Your task to perform on an android device: Go to Amazon Image 0: 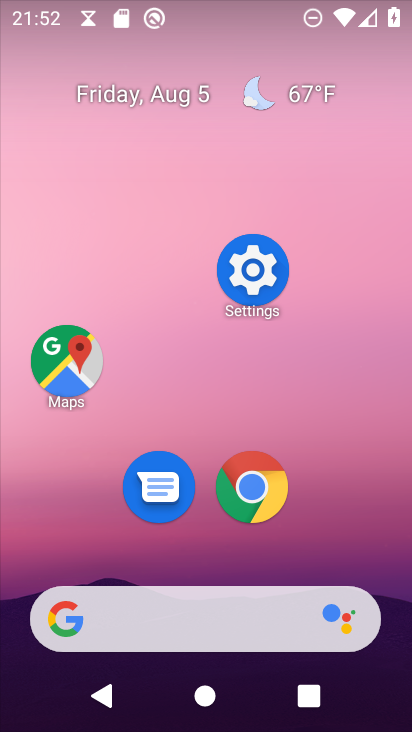
Step 0: click (254, 476)
Your task to perform on an android device: Go to Amazon Image 1: 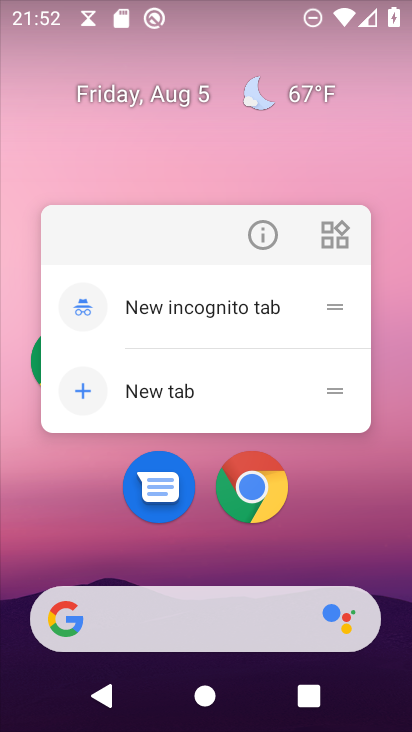
Step 1: click (248, 483)
Your task to perform on an android device: Go to Amazon Image 2: 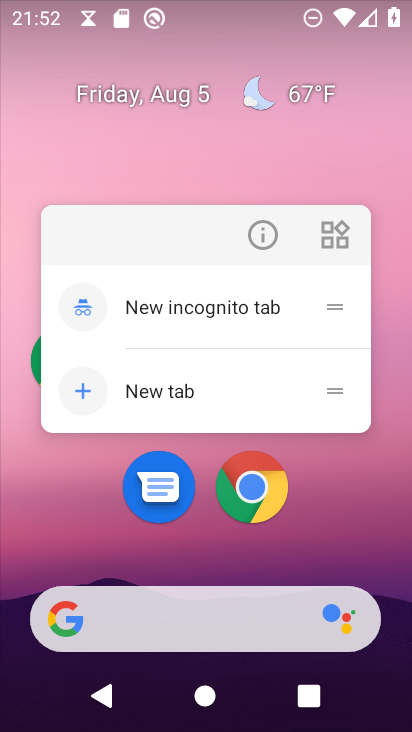
Step 2: click (264, 481)
Your task to perform on an android device: Go to Amazon Image 3: 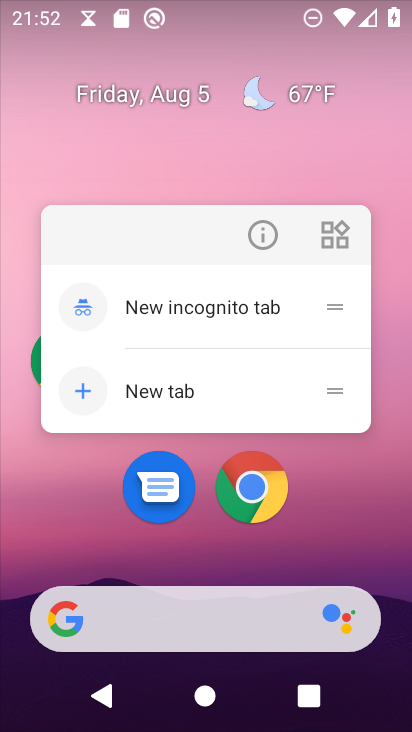
Step 3: click (254, 479)
Your task to perform on an android device: Go to Amazon Image 4: 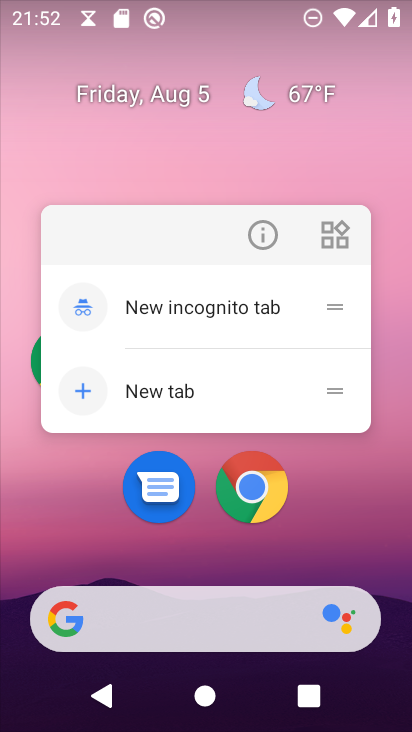
Step 4: click (256, 486)
Your task to perform on an android device: Go to Amazon Image 5: 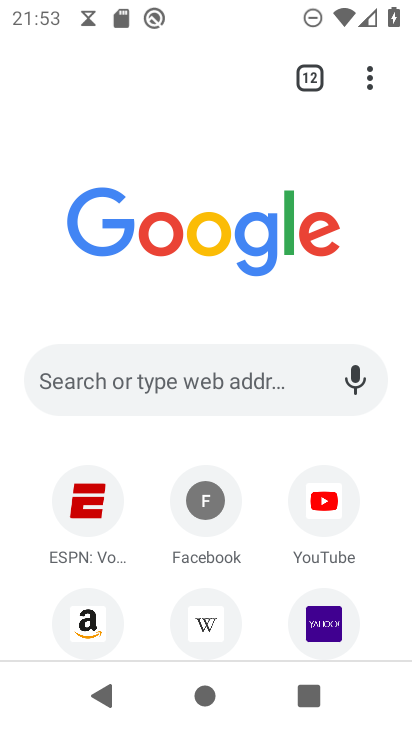
Step 5: click (84, 612)
Your task to perform on an android device: Go to Amazon Image 6: 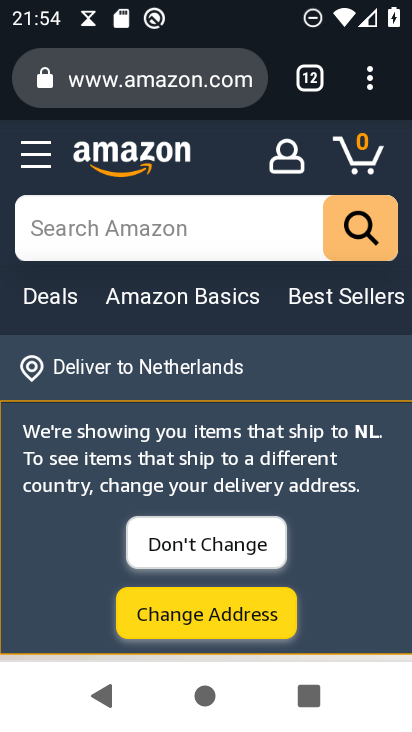
Step 6: task complete